Your task to perform on an android device: Go to accessibility settings Image 0: 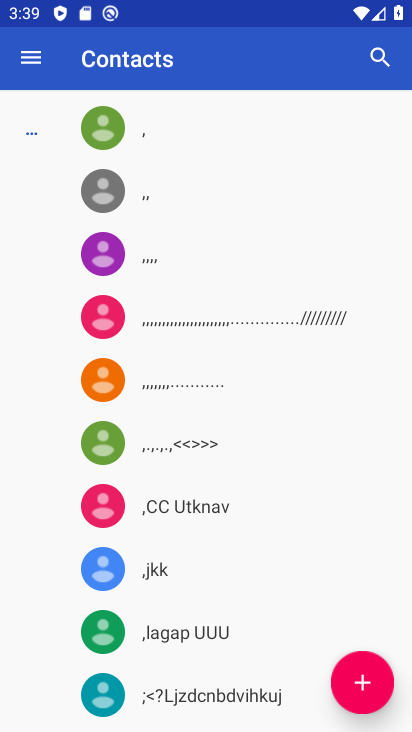
Step 0: press home button
Your task to perform on an android device: Go to accessibility settings Image 1: 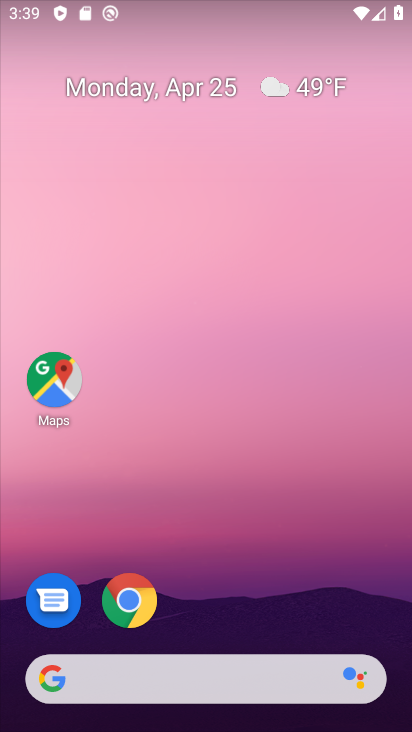
Step 1: drag from (311, 514) to (329, 34)
Your task to perform on an android device: Go to accessibility settings Image 2: 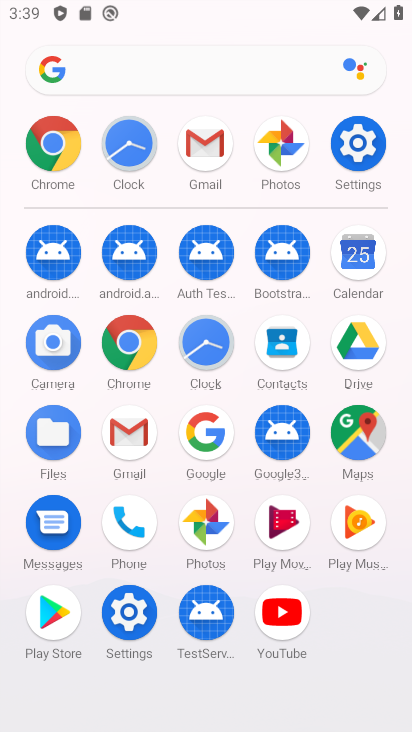
Step 2: click (127, 605)
Your task to perform on an android device: Go to accessibility settings Image 3: 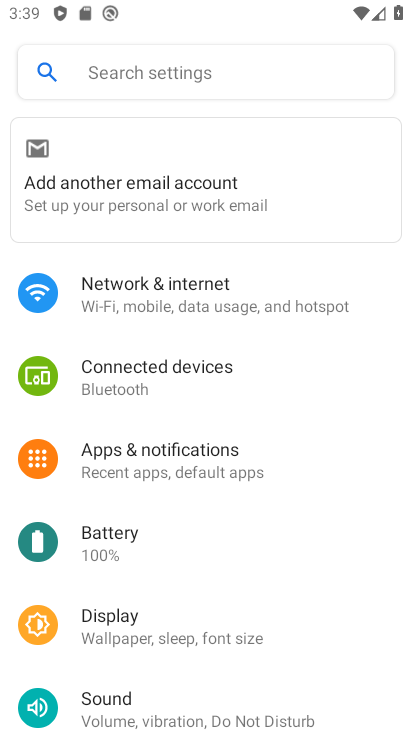
Step 3: drag from (266, 595) to (336, 115)
Your task to perform on an android device: Go to accessibility settings Image 4: 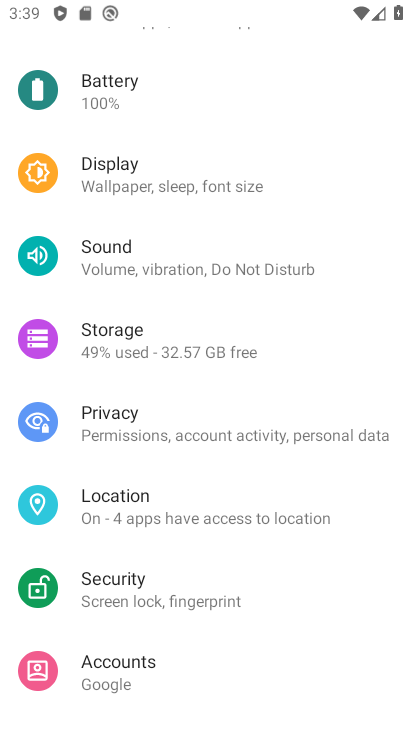
Step 4: drag from (259, 596) to (285, 195)
Your task to perform on an android device: Go to accessibility settings Image 5: 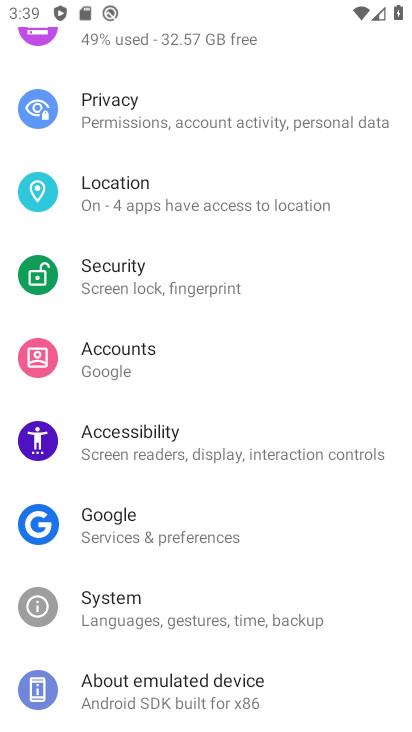
Step 5: click (202, 437)
Your task to perform on an android device: Go to accessibility settings Image 6: 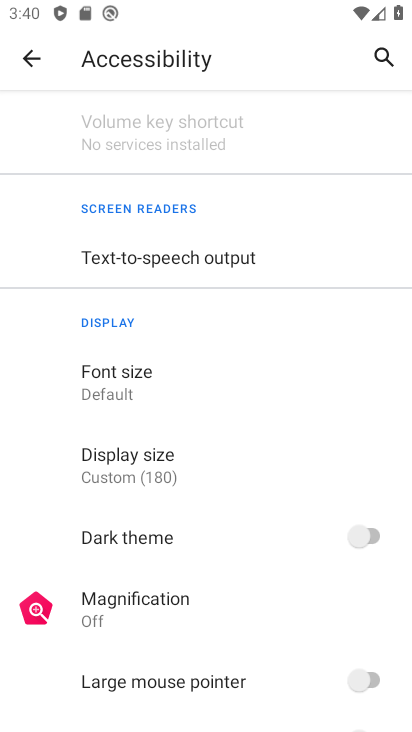
Step 6: task complete